Your task to perform on an android device: add a label to a message in the gmail app Image 0: 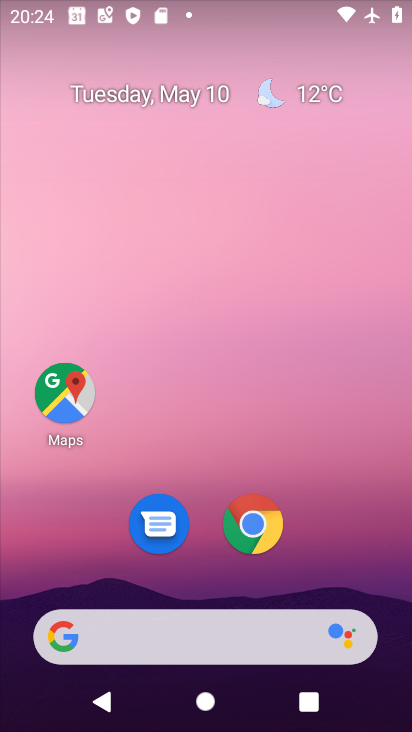
Step 0: drag from (317, 475) to (250, 28)
Your task to perform on an android device: add a label to a message in the gmail app Image 1: 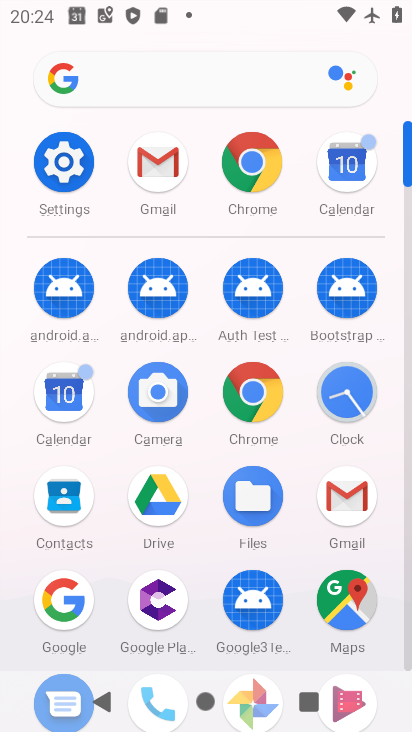
Step 1: click (172, 156)
Your task to perform on an android device: add a label to a message in the gmail app Image 2: 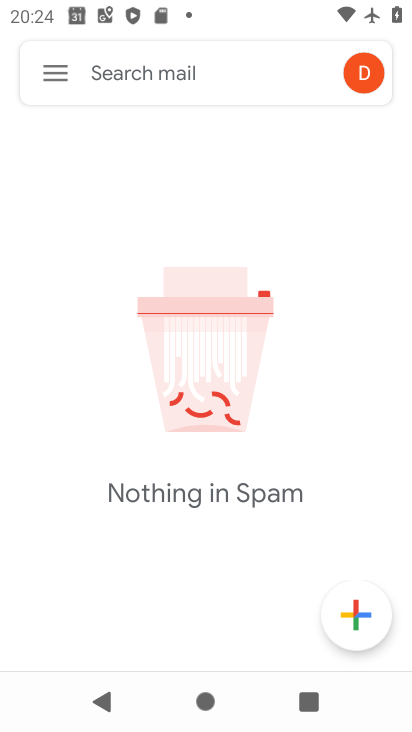
Step 2: click (58, 70)
Your task to perform on an android device: add a label to a message in the gmail app Image 3: 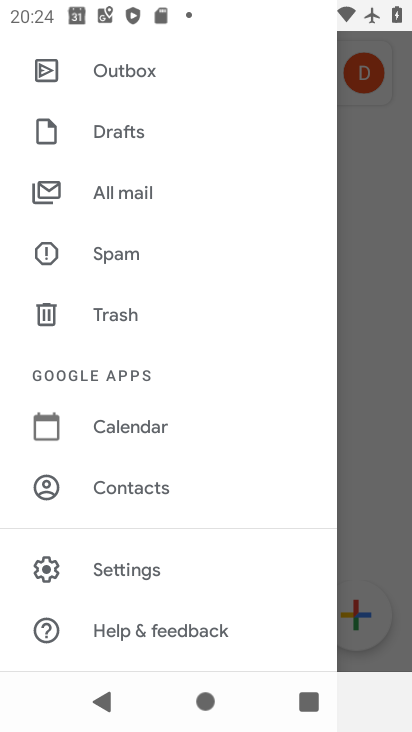
Step 3: click (142, 192)
Your task to perform on an android device: add a label to a message in the gmail app Image 4: 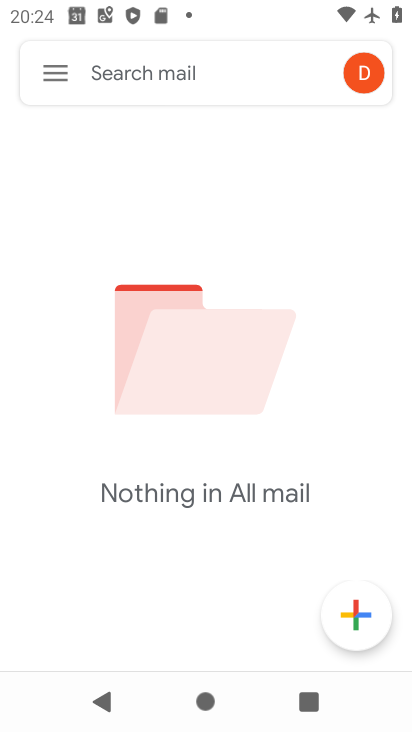
Step 4: task complete